Your task to perform on an android device: open chrome and create a bookmark for the current page Image 0: 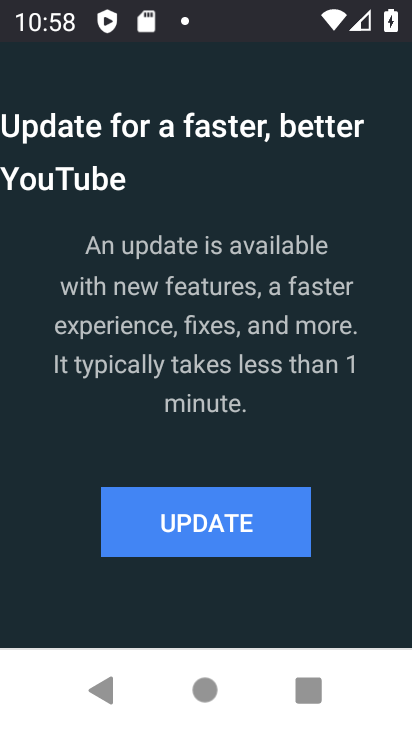
Step 0: press home button
Your task to perform on an android device: open chrome and create a bookmark for the current page Image 1: 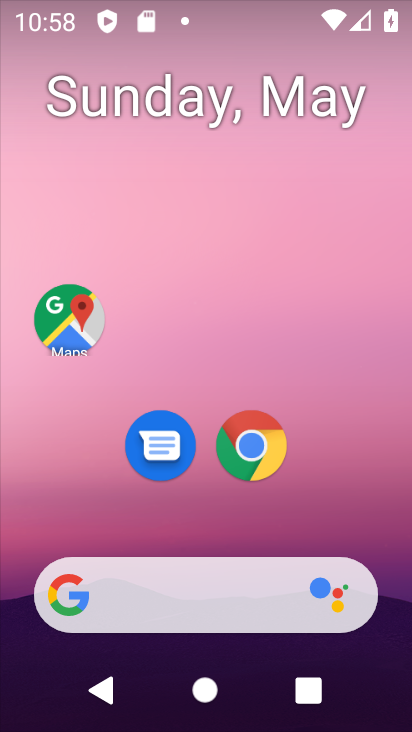
Step 1: click (251, 444)
Your task to perform on an android device: open chrome and create a bookmark for the current page Image 2: 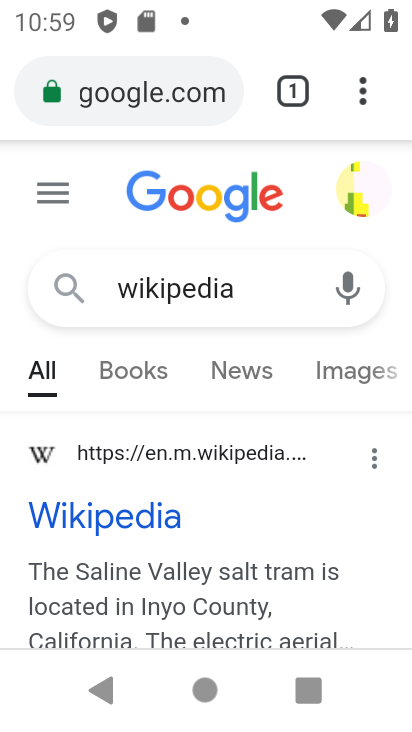
Step 2: click (357, 79)
Your task to perform on an android device: open chrome and create a bookmark for the current page Image 3: 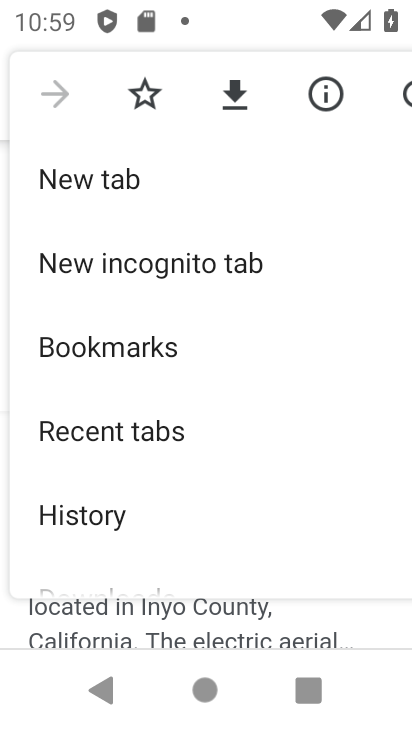
Step 3: click (100, 356)
Your task to perform on an android device: open chrome and create a bookmark for the current page Image 4: 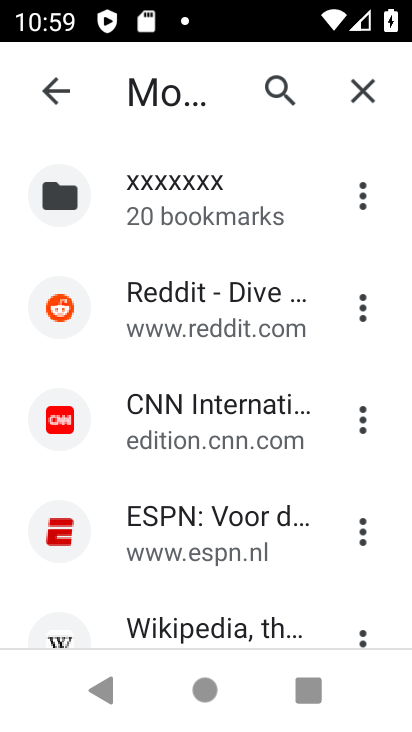
Step 4: click (59, 92)
Your task to perform on an android device: open chrome and create a bookmark for the current page Image 5: 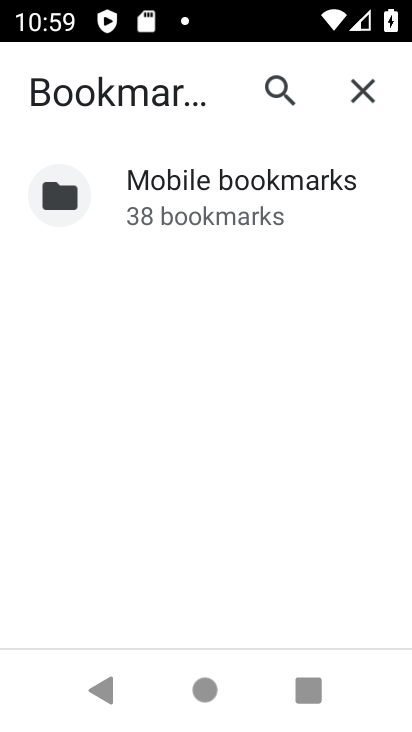
Step 5: click (360, 94)
Your task to perform on an android device: open chrome and create a bookmark for the current page Image 6: 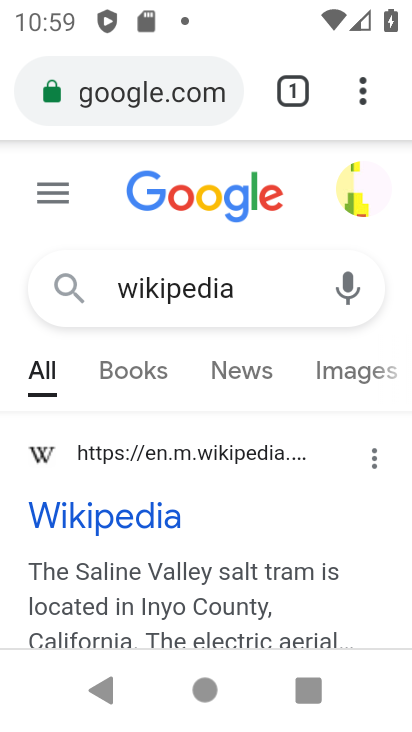
Step 6: click (361, 94)
Your task to perform on an android device: open chrome and create a bookmark for the current page Image 7: 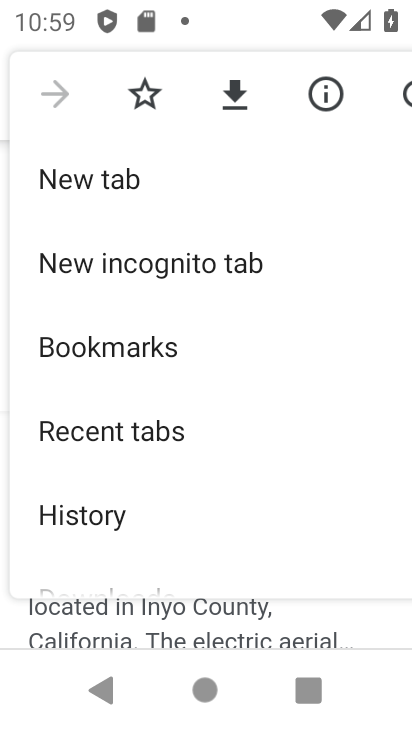
Step 7: click (152, 104)
Your task to perform on an android device: open chrome and create a bookmark for the current page Image 8: 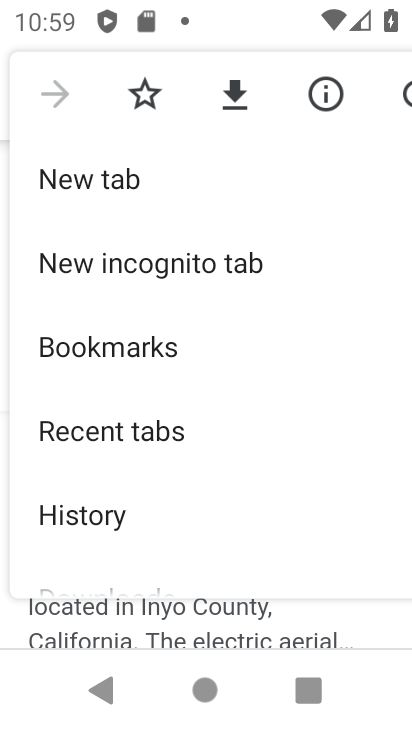
Step 8: task complete